Your task to perform on an android device: Open settings Image 0: 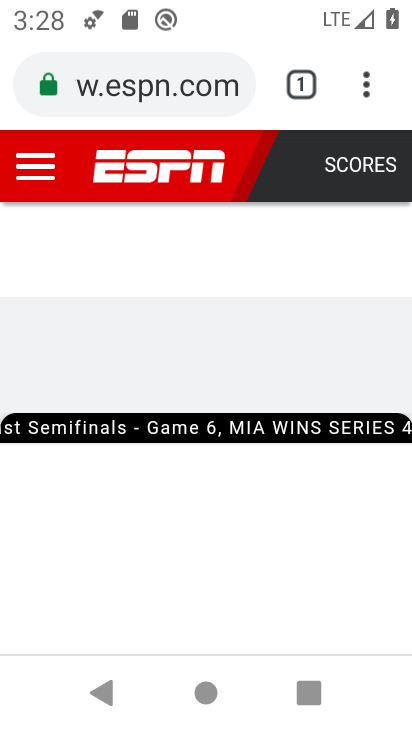
Step 0: press home button
Your task to perform on an android device: Open settings Image 1: 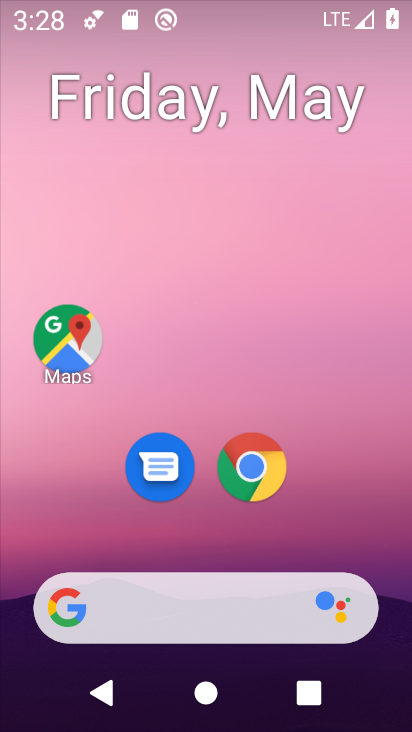
Step 1: drag from (339, 496) to (275, 27)
Your task to perform on an android device: Open settings Image 2: 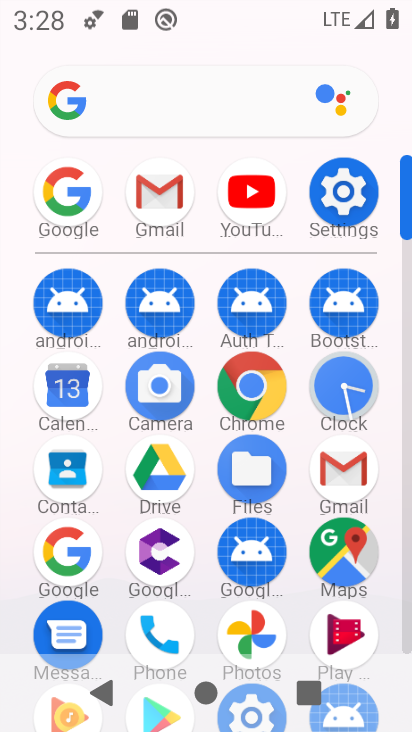
Step 2: click (330, 204)
Your task to perform on an android device: Open settings Image 3: 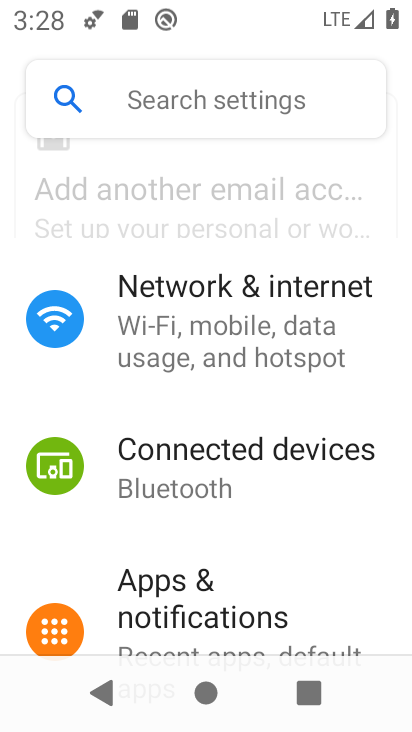
Step 3: task complete